Your task to perform on an android device: Open Google Chrome and click the shortcut for Amazon.com Image 0: 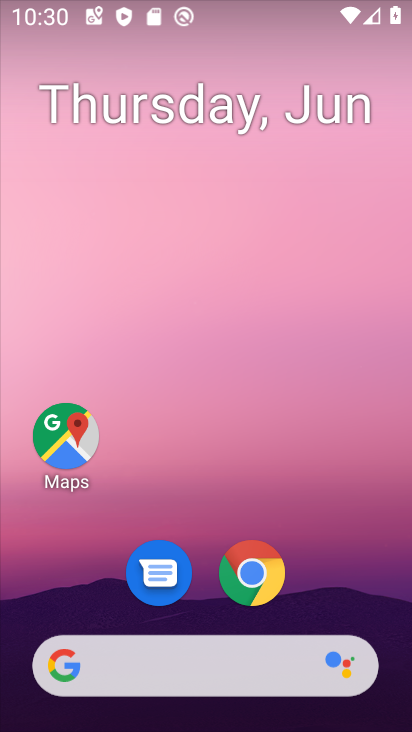
Step 0: press home button
Your task to perform on an android device: Open Google Chrome and click the shortcut for Amazon.com Image 1: 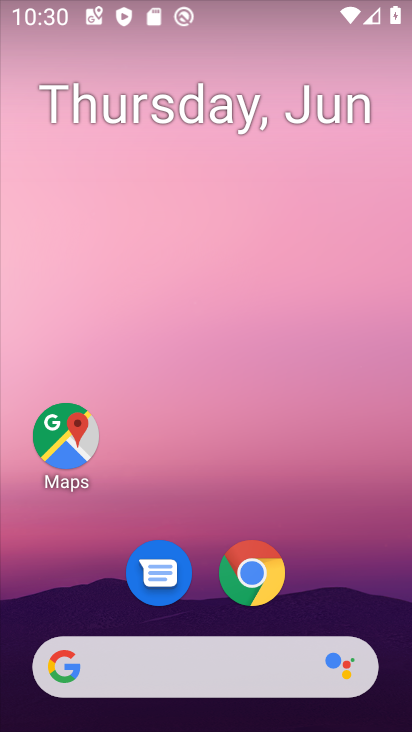
Step 1: click (245, 563)
Your task to perform on an android device: Open Google Chrome and click the shortcut for Amazon.com Image 2: 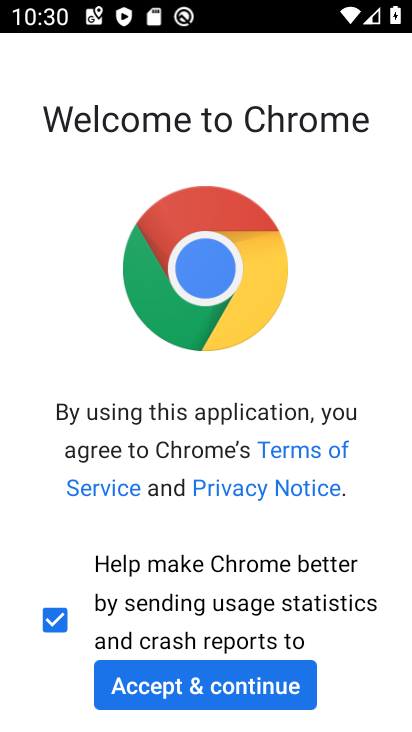
Step 2: click (201, 685)
Your task to perform on an android device: Open Google Chrome and click the shortcut for Amazon.com Image 3: 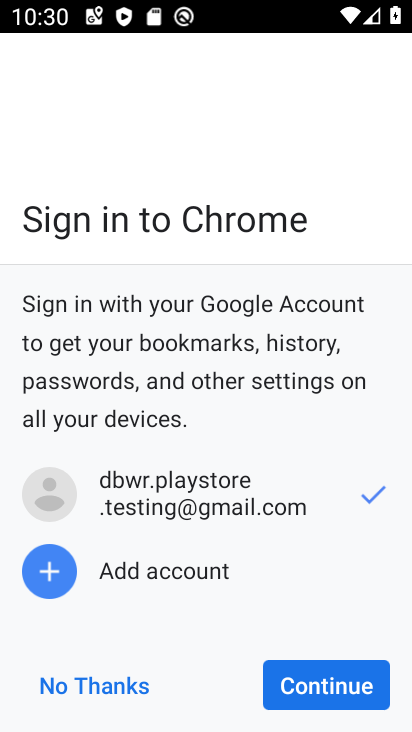
Step 3: click (343, 687)
Your task to perform on an android device: Open Google Chrome and click the shortcut for Amazon.com Image 4: 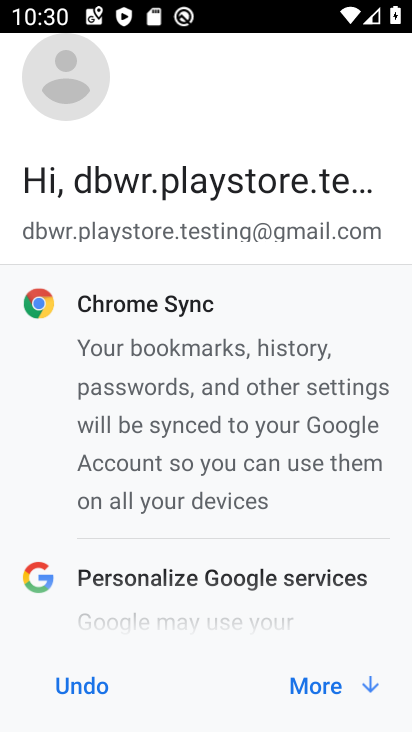
Step 4: click (343, 687)
Your task to perform on an android device: Open Google Chrome and click the shortcut for Amazon.com Image 5: 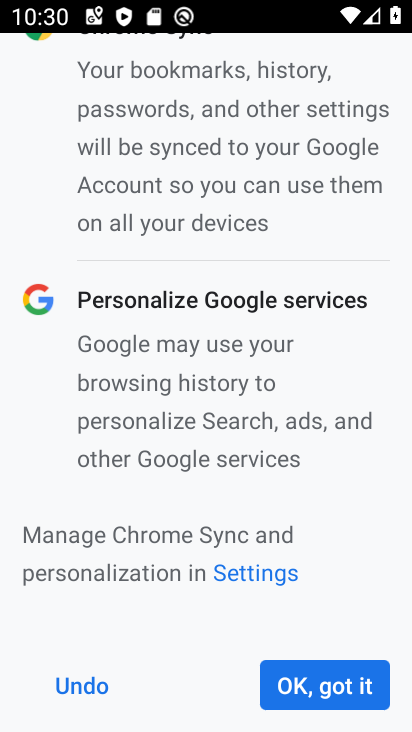
Step 5: click (343, 687)
Your task to perform on an android device: Open Google Chrome and click the shortcut for Amazon.com Image 6: 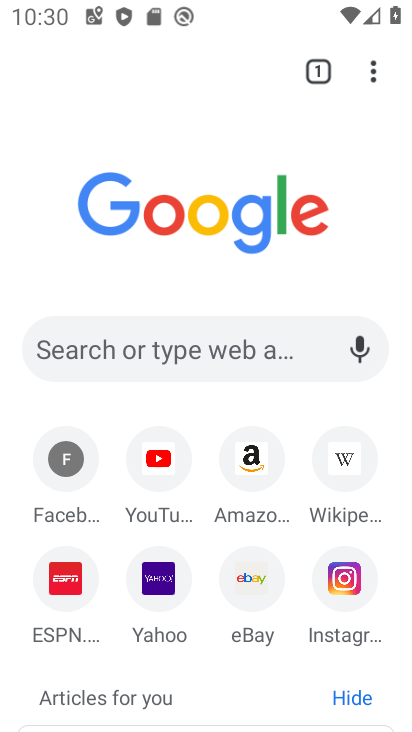
Step 6: click (254, 454)
Your task to perform on an android device: Open Google Chrome and click the shortcut for Amazon.com Image 7: 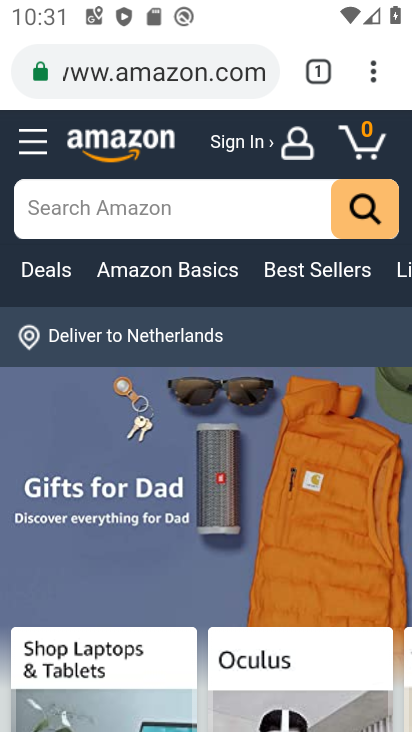
Step 7: task complete